Your task to perform on an android device: change the clock display to show seconds Image 0: 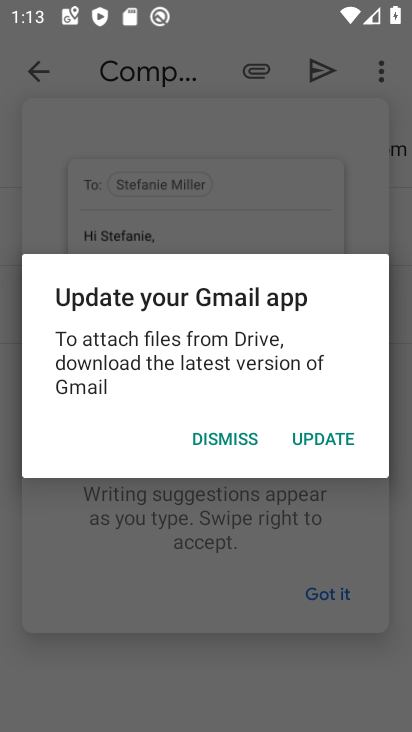
Step 0: press back button
Your task to perform on an android device: change the clock display to show seconds Image 1: 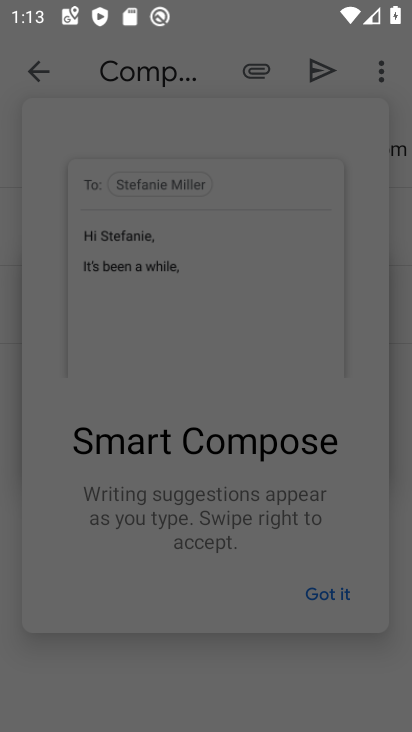
Step 1: press home button
Your task to perform on an android device: change the clock display to show seconds Image 2: 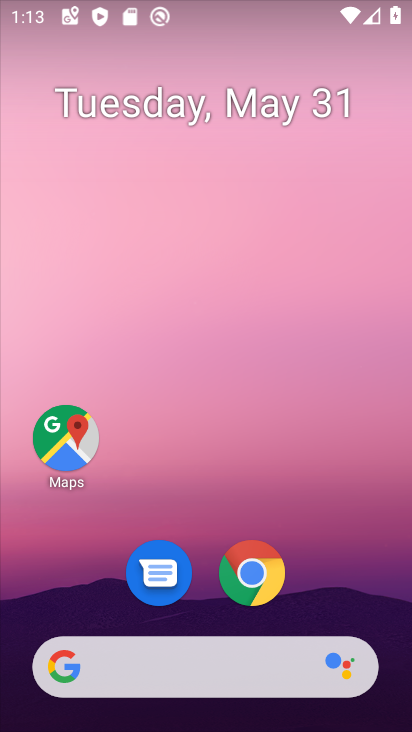
Step 2: drag from (383, 593) to (393, 207)
Your task to perform on an android device: change the clock display to show seconds Image 3: 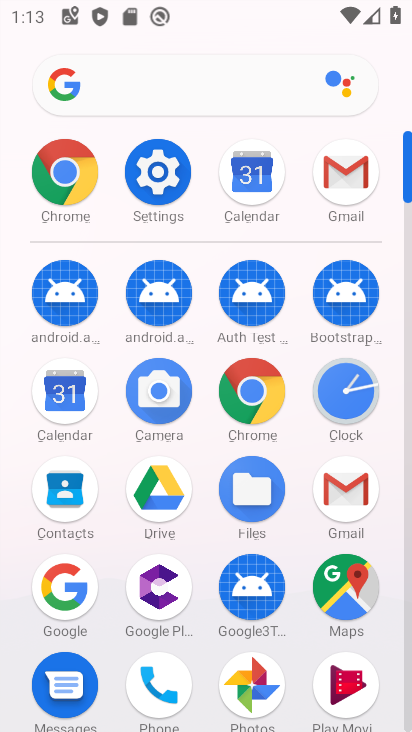
Step 3: click (360, 397)
Your task to perform on an android device: change the clock display to show seconds Image 4: 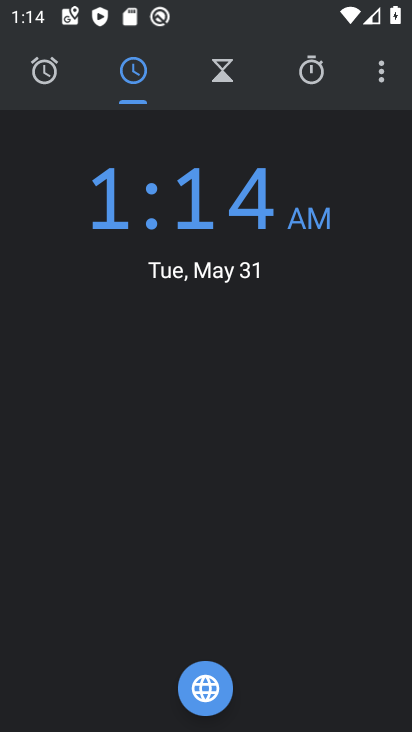
Step 4: click (382, 86)
Your task to perform on an android device: change the clock display to show seconds Image 5: 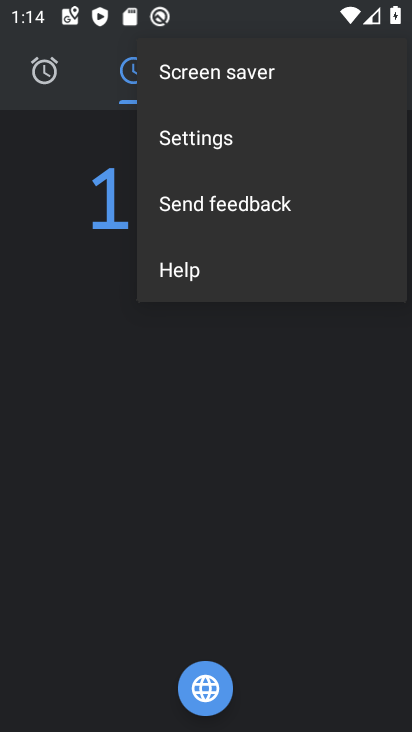
Step 5: click (220, 145)
Your task to perform on an android device: change the clock display to show seconds Image 6: 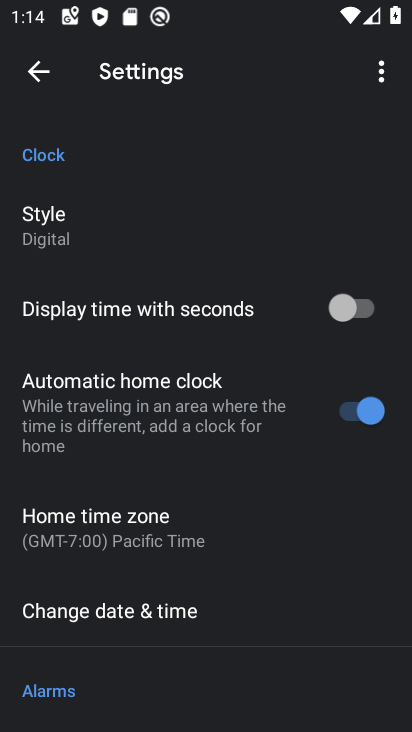
Step 6: drag from (296, 487) to (317, 399)
Your task to perform on an android device: change the clock display to show seconds Image 7: 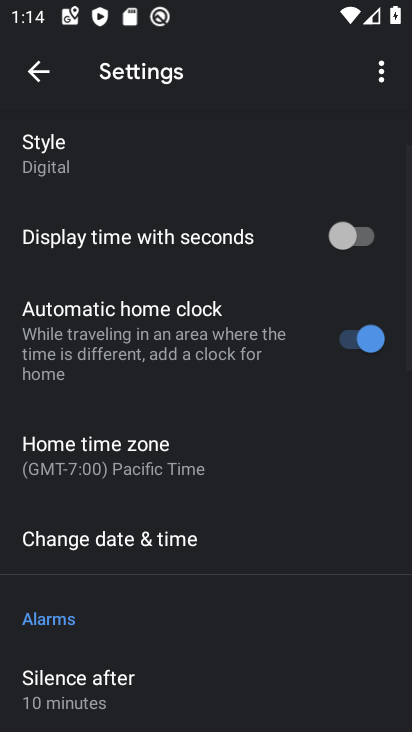
Step 7: drag from (319, 529) to (325, 411)
Your task to perform on an android device: change the clock display to show seconds Image 8: 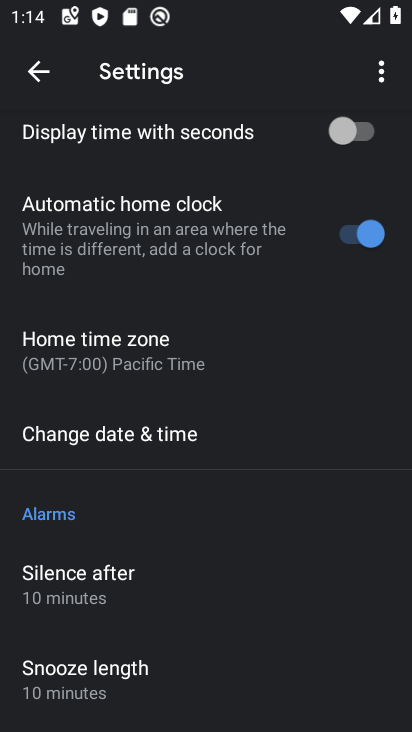
Step 8: drag from (316, 546) to (311, 447)
Your task to perform on an android device: change the clock display to show seconds Image 9: 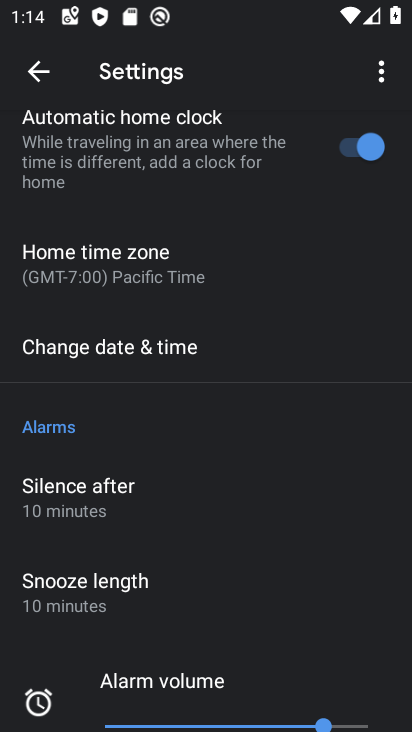
Step 9: drag from (299, 556) to (294, 458)
Your task to perform on an android device: change the clock display to show seconds Image 10: 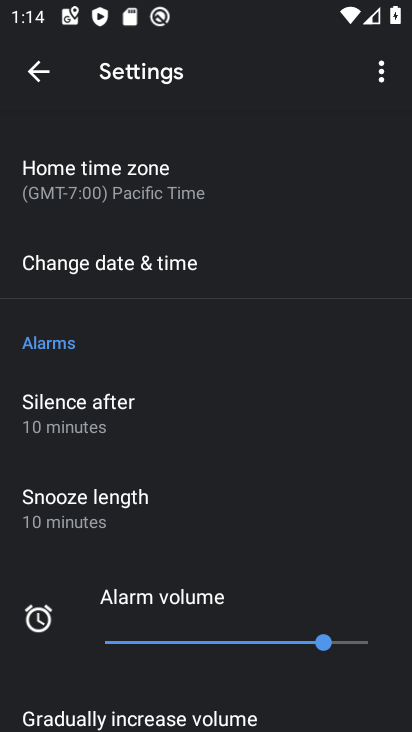
Step 10: drag from (295, 547) to (303, 453)
Your task to perform on an android device: change the clock display to show seconds Image 11: 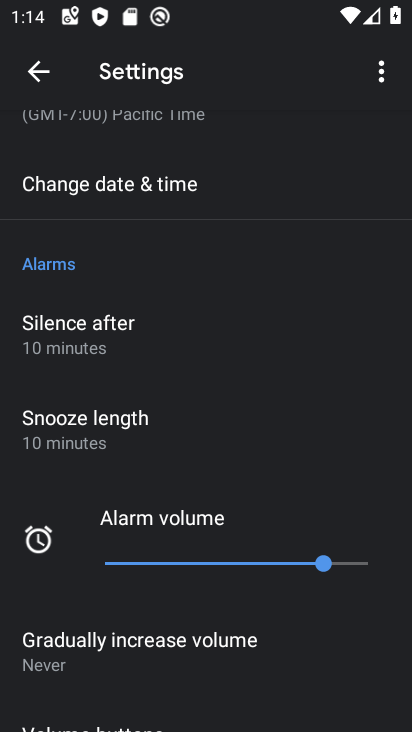
Step 11: drag from (331, 628) to (339, 508)
Your task to perform on an android device: change the clock display to show seconds Image 12: 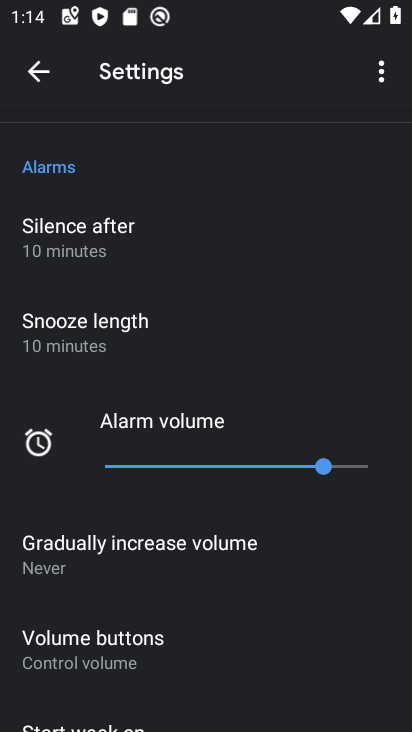
Step 12: drag from (328, 620) to (337, 530)
Your task to perform on an android device: change the clock display to show seconds Image 13: 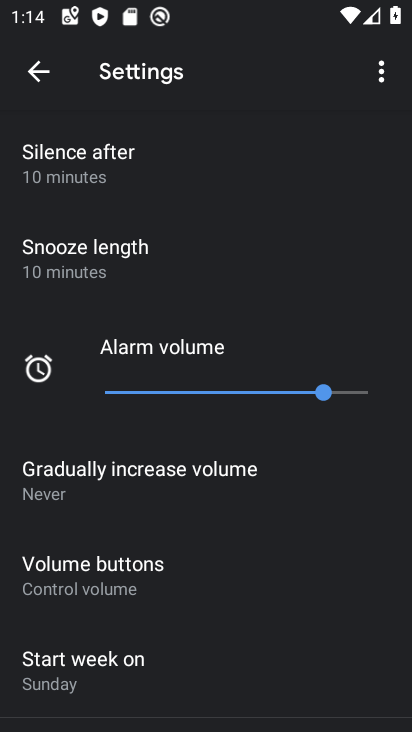
Step 13: drag from (350, 638) to (356, 521)
Your task to perform on an android device: change the clock display to show seconds Image 14: 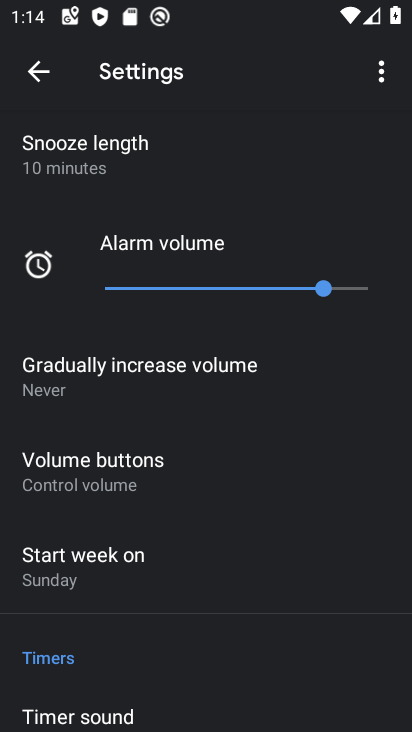
Step 14: drag from (340, 650) to (356, 526)
Your task to perform on an android device: change the clock display to show seconds Image 15: 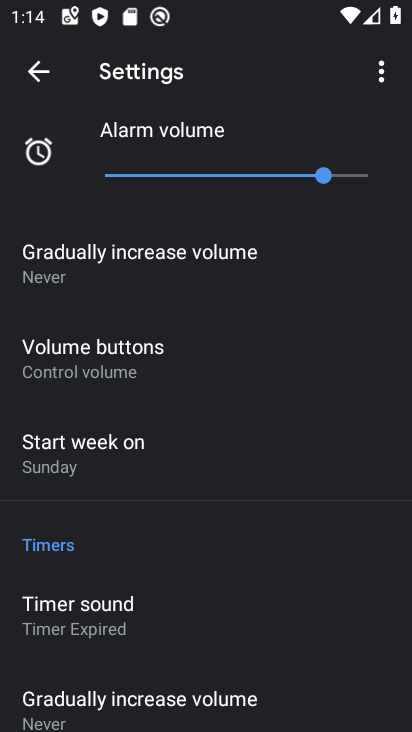
Step 15: drag from (351, 646) to (361, 417)
Your task to perform on an android device: change the clock display to show seconds Image 16: 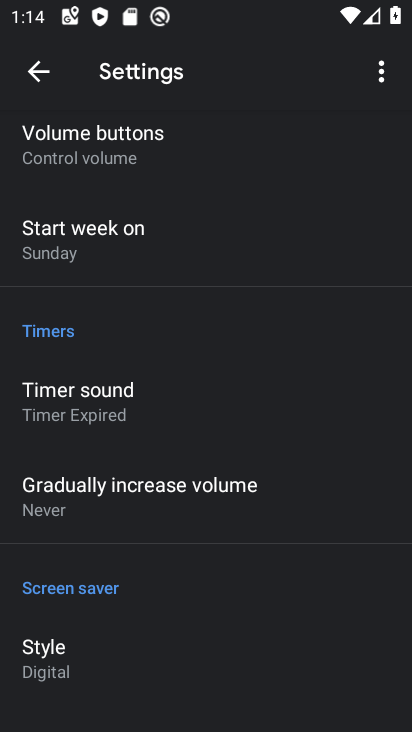
Step 16: drag from (352, 312) to (355, 443)
Your task to perform on an android device: change the clock display to show seconds Image 17: 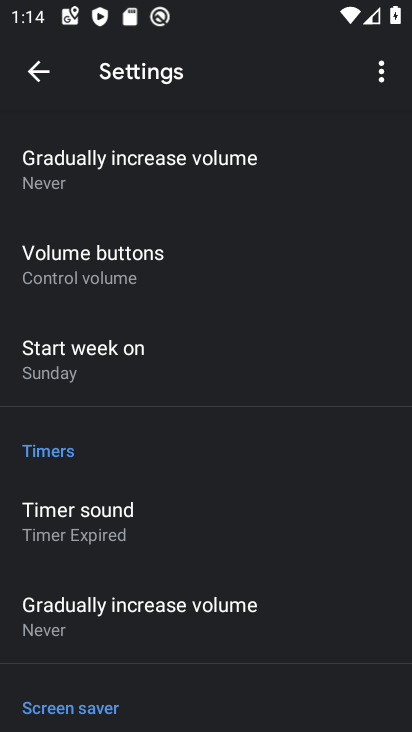
Step 17: drag from (344, 321) to (355, 453)
Your task to perform on an android device: change the clock display to show seconds Image 18: 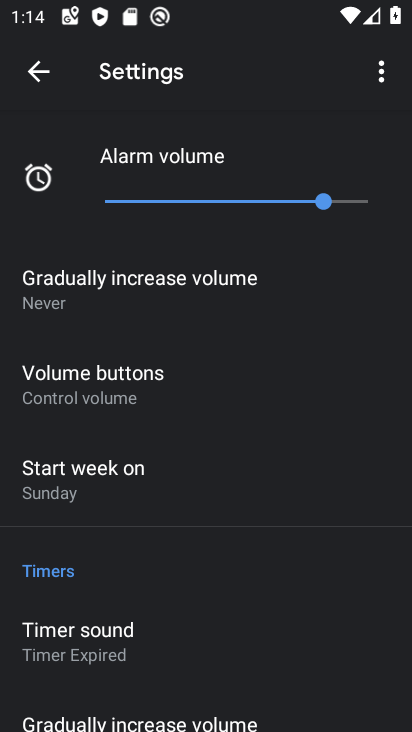
Step 18: drag from (359, 299) to (359, 412)
Your task to perform on an android device: change the clock display to show seconds Image 19: 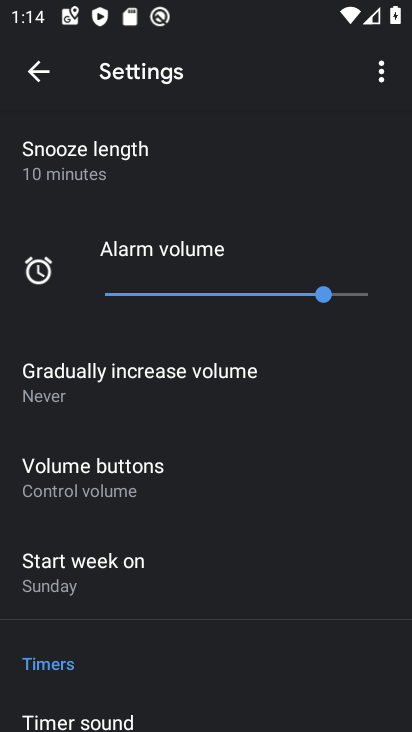
Step 19: drag from (356, 232) to (350, 372)
Your task to perform on an android device: change the clock display to show seconds Image 20: 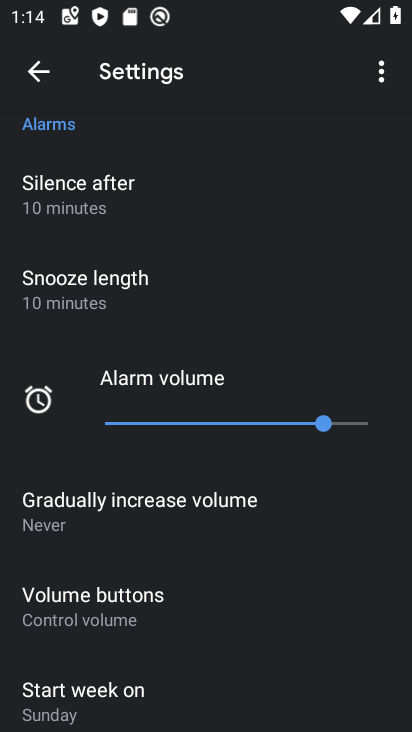
Step 20: drag from (333, 225) to (328, 343)
Your task to perform on an android device: change the clock display to show seconds Image 21: 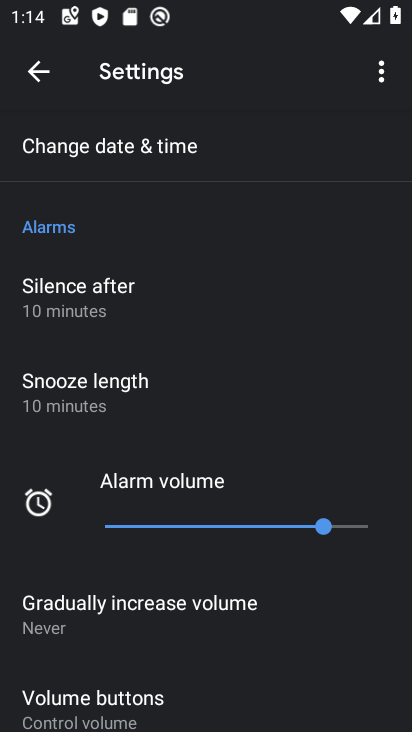
Step 21: drag from (318, 164) to (320, 315)
Your task to perform on an android device: change the clock display to show seconds Image 22: 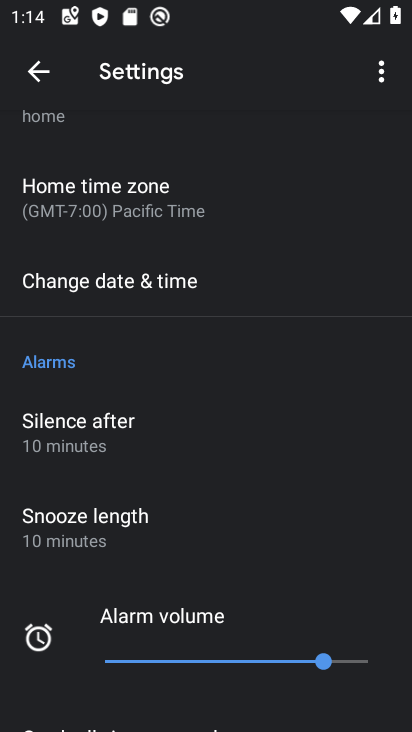
Step 22: drag from (294, 184) to (299, 349)
Your task to perform on an android device: change the clock display to show seconds Image 23: 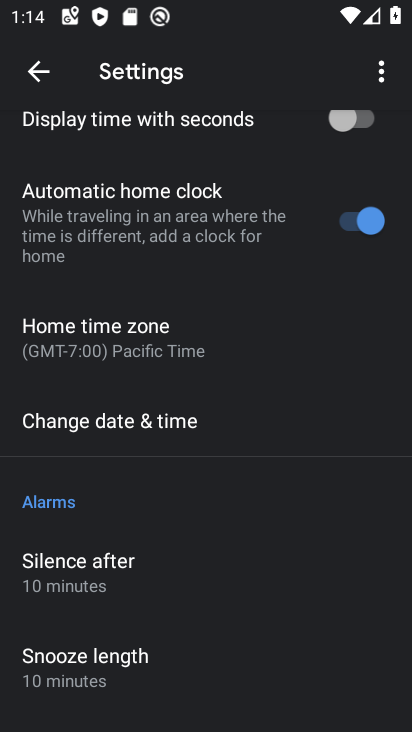
Step 23: drag from (285, 144) to (280, 343)
Your task to perform on an android device: change the clock display to show seconds Image 24: 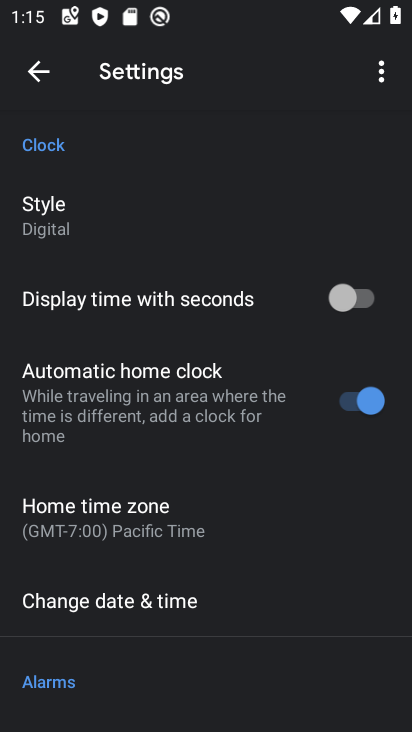
Step 24: drag from (239, 182) to (243, 322)
Your task to perform on an android device: change the clock display to show seconds Image 25: 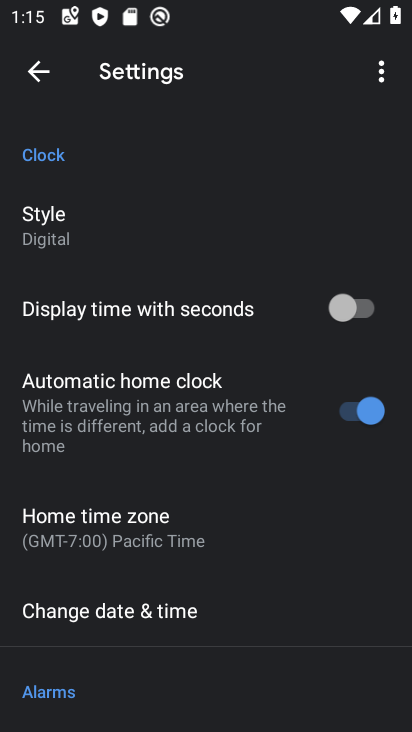
Step 25: click (334, 321)
Your task to perform on an android device: change the clock display to show seconds Image 26: 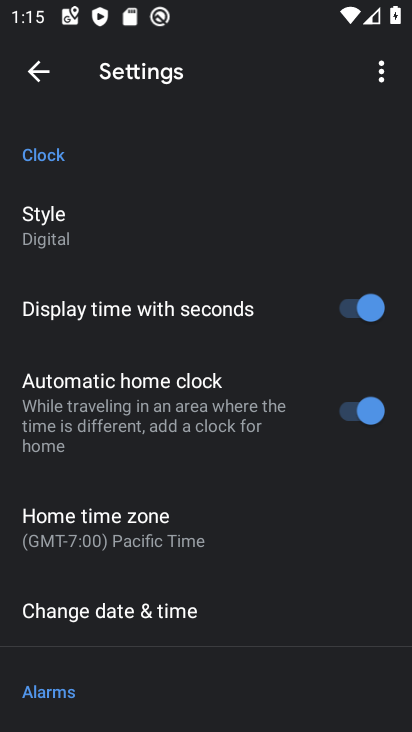
Step 26: task complete